Your task to perform on an android device: set default search engine in the chrome app Image 0: 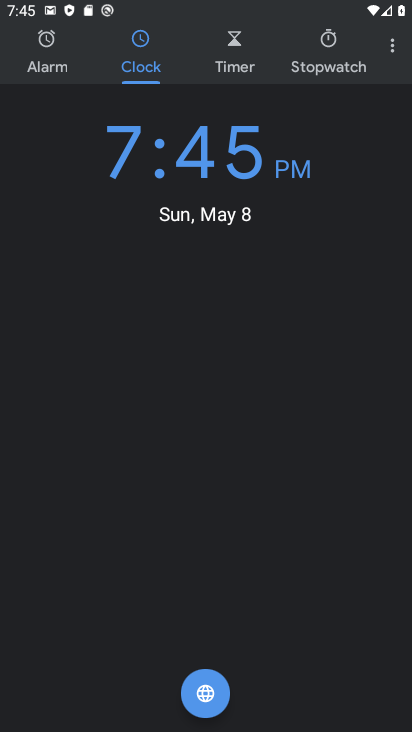
Step 0: press home button
Your task to perform on an android device: set default search engine in the chrome app Image 1: 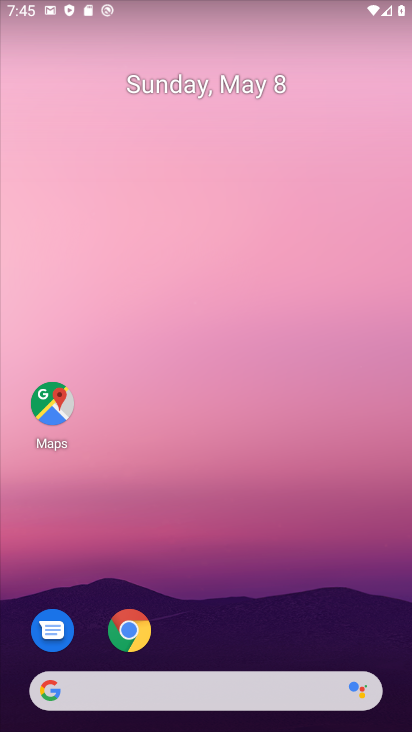
Step 1: click (132, 631)
Your task to perform on an android device: set default search engine in the chrome app Image 2: 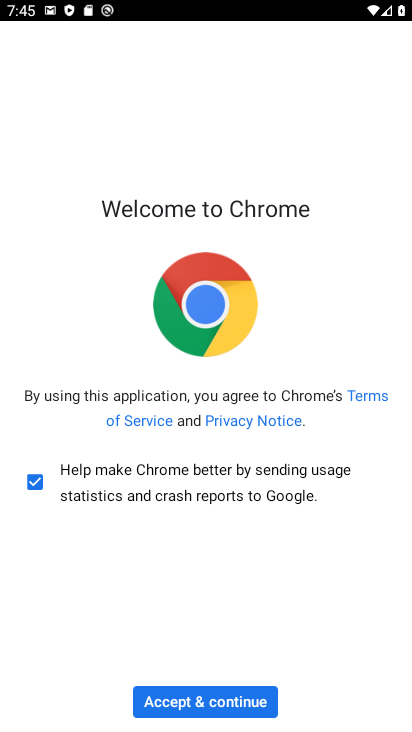
Step 2: click (201, 713)
Your task to perform on an android device: set default search engine in the chrome app Image 3: 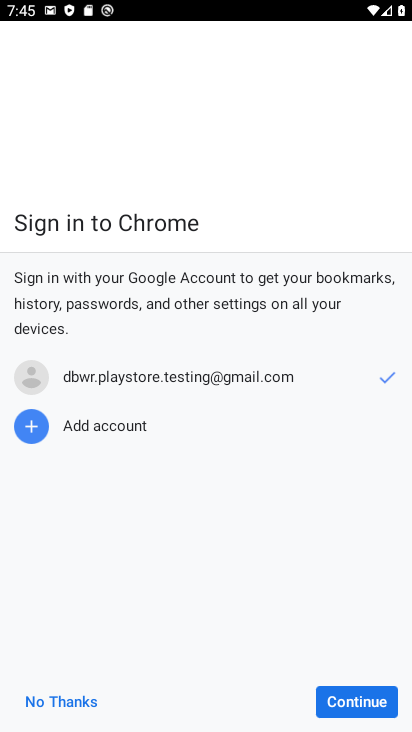
Step 3: click (387, 696)
Your task to perform on an android device: set default search engine in the chrome app Image 4: 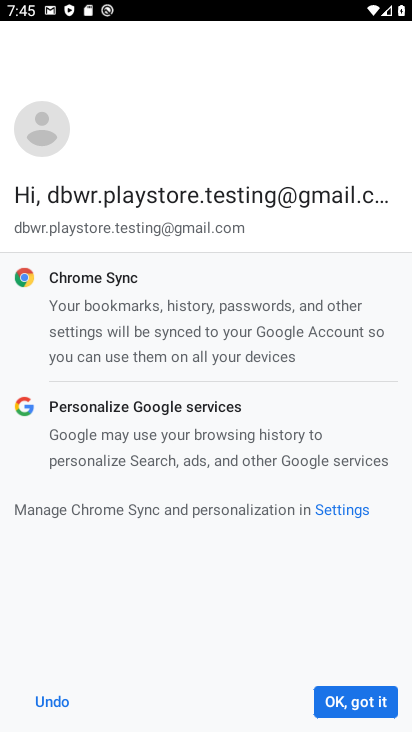
Step 4: click (387, 697)
Your task to perform on an android device: set default search engine in the chrome app Image 5: 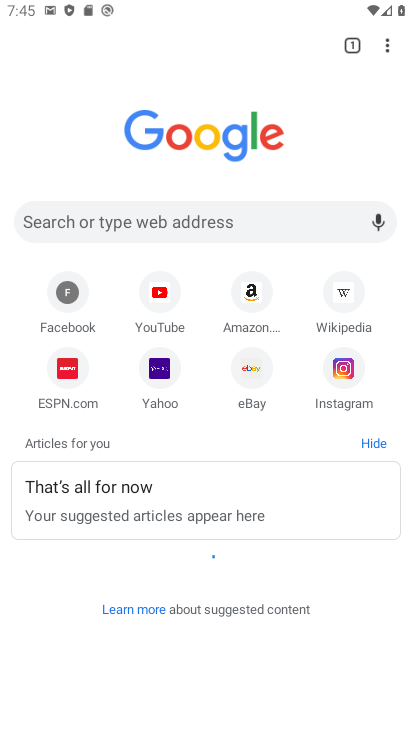
Step 5: click (384, 46)
Your task to perform on an android device: set default search engine in the chrome app Image 6: 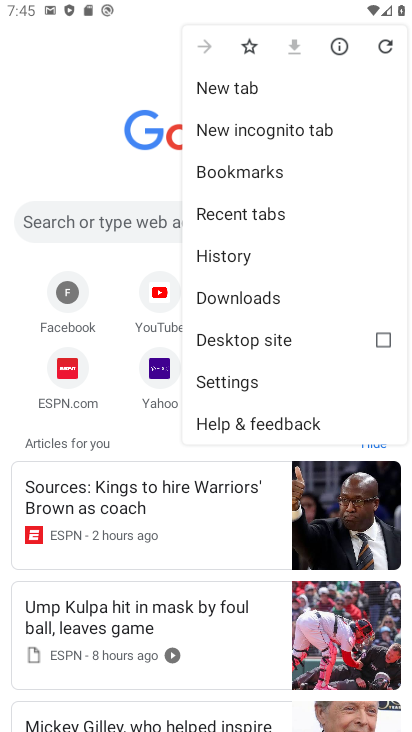
Step 6: click (237, 376)
Your task to perform on an android device: set default search engine in the chrome app Image 7: 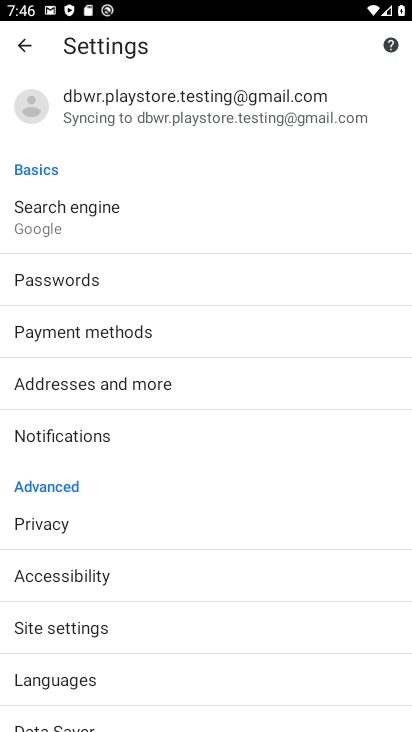
Step 7: click (63, 208)
Your task to perform on an android device: set default search engine in the chrome app Image 8: 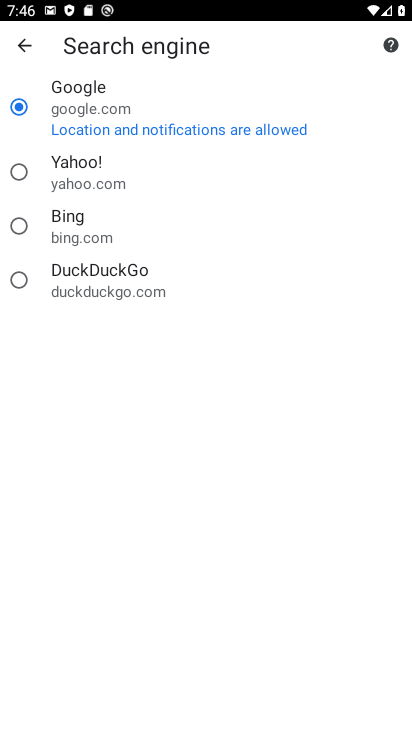
Step 8: task complete